Your task to perform on an android device: turn on data saver in the chrome app Image 0: 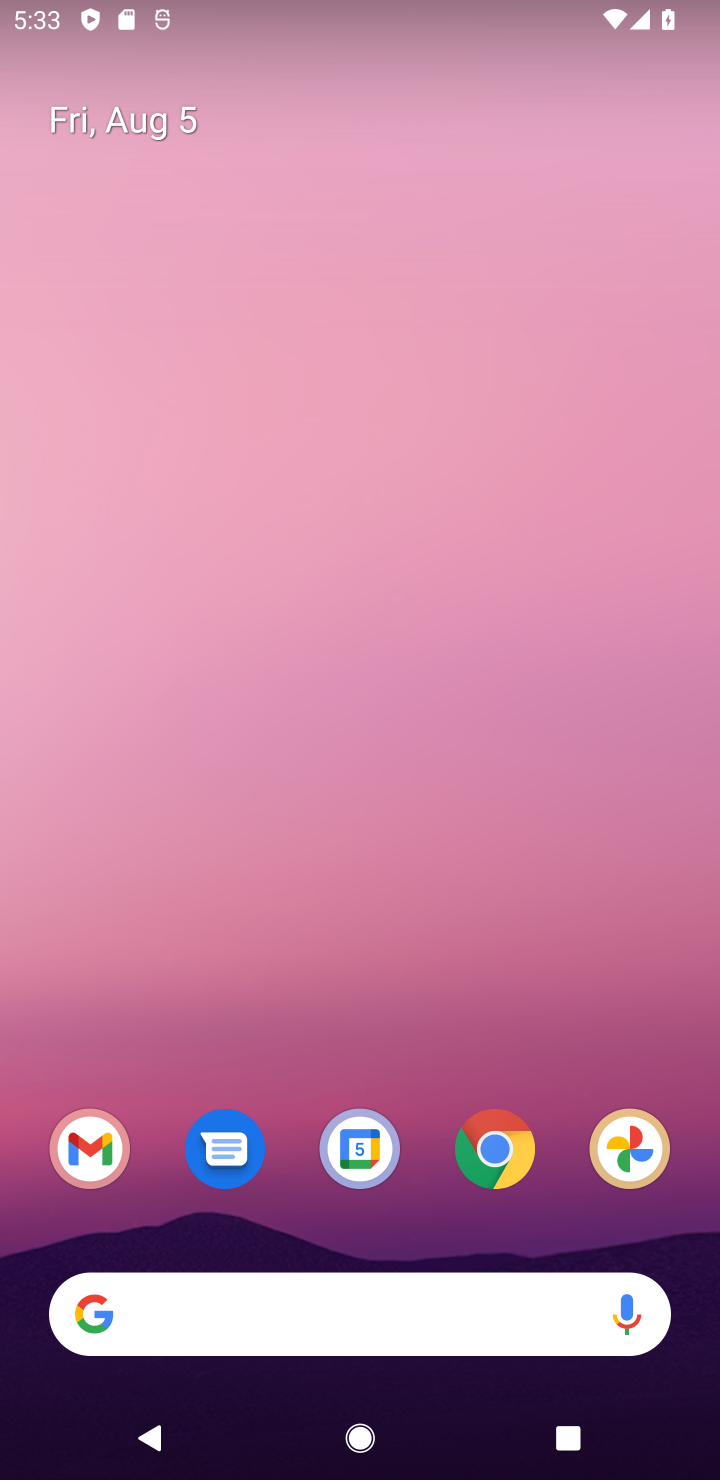
Step 0: click (491, 1159)
Your task to perform on an android device: turn on data saver in the chrome app Image 1: 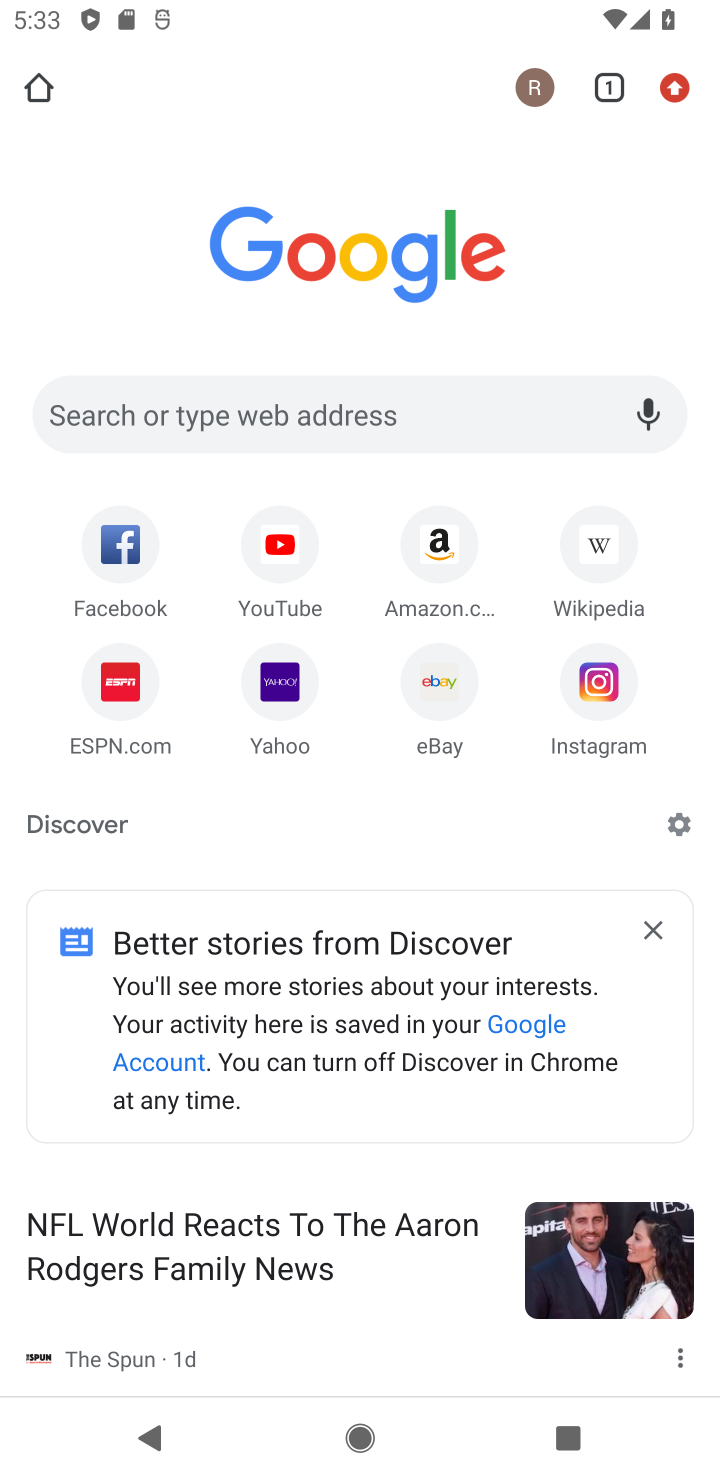
Step 1: click (670, 83)
Your task to perform on an android device: turn on data saver in the chrome app Image 2: 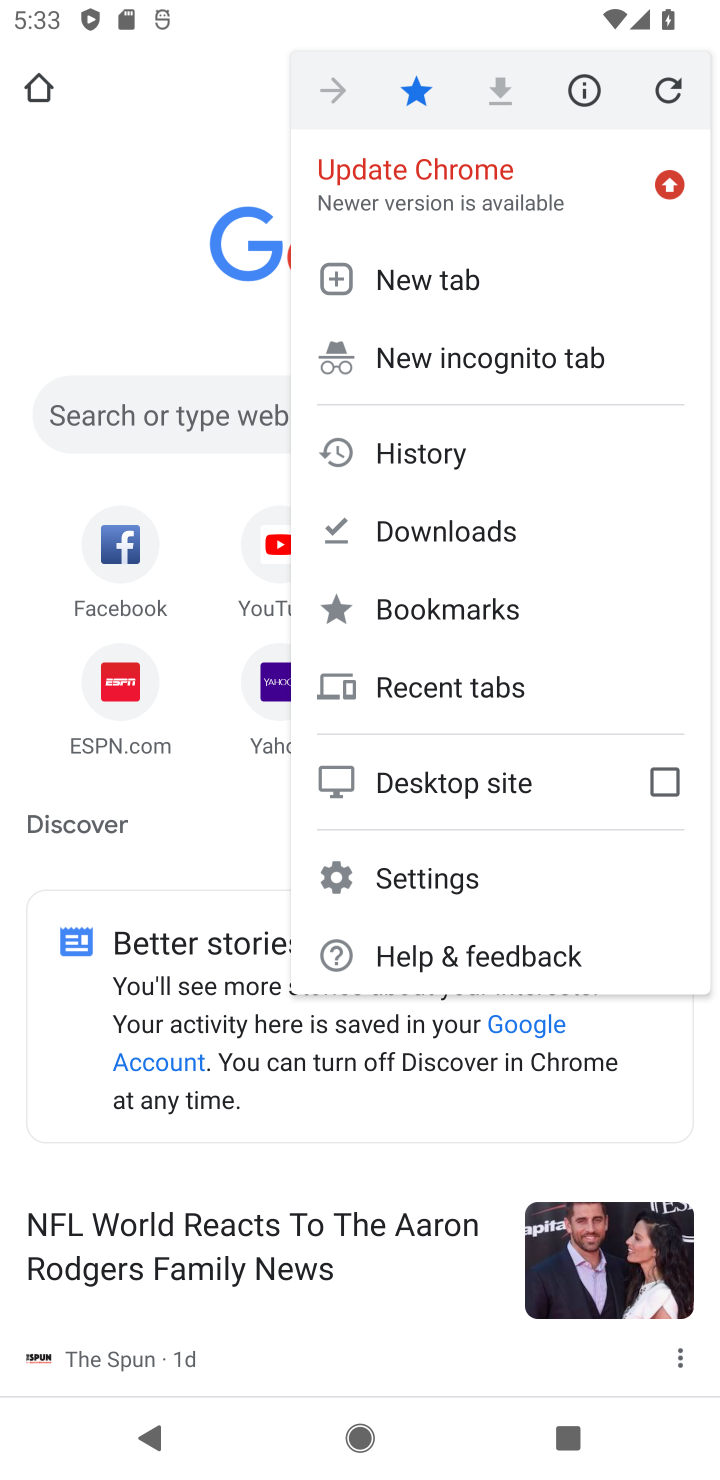
Step 2: click (403, 882)
Your task to perform on an android device: turn on data saver in the chrome app Image 3: 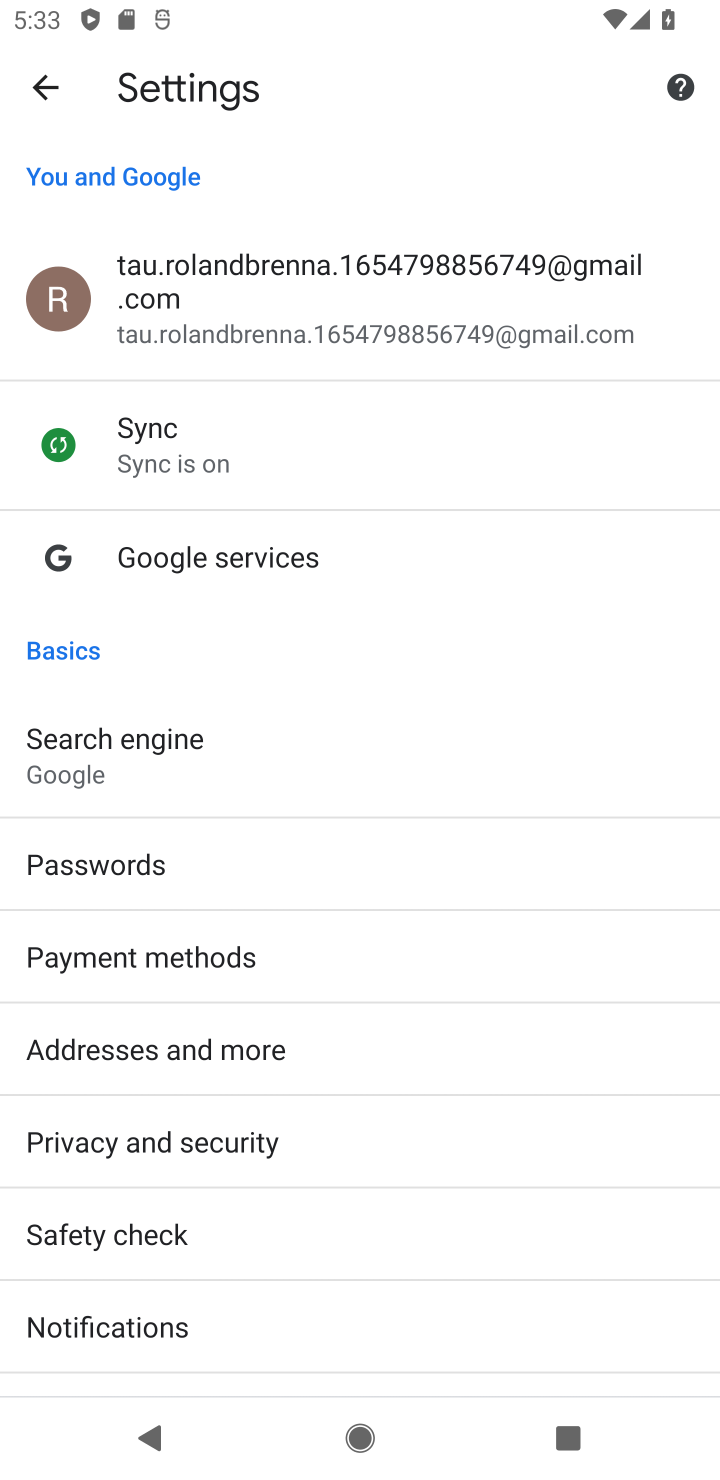
Step 3: drag from (431, 971) to (314, 391)
Your task to perform on an android device: turn on data saver in the chrome app Image 4: 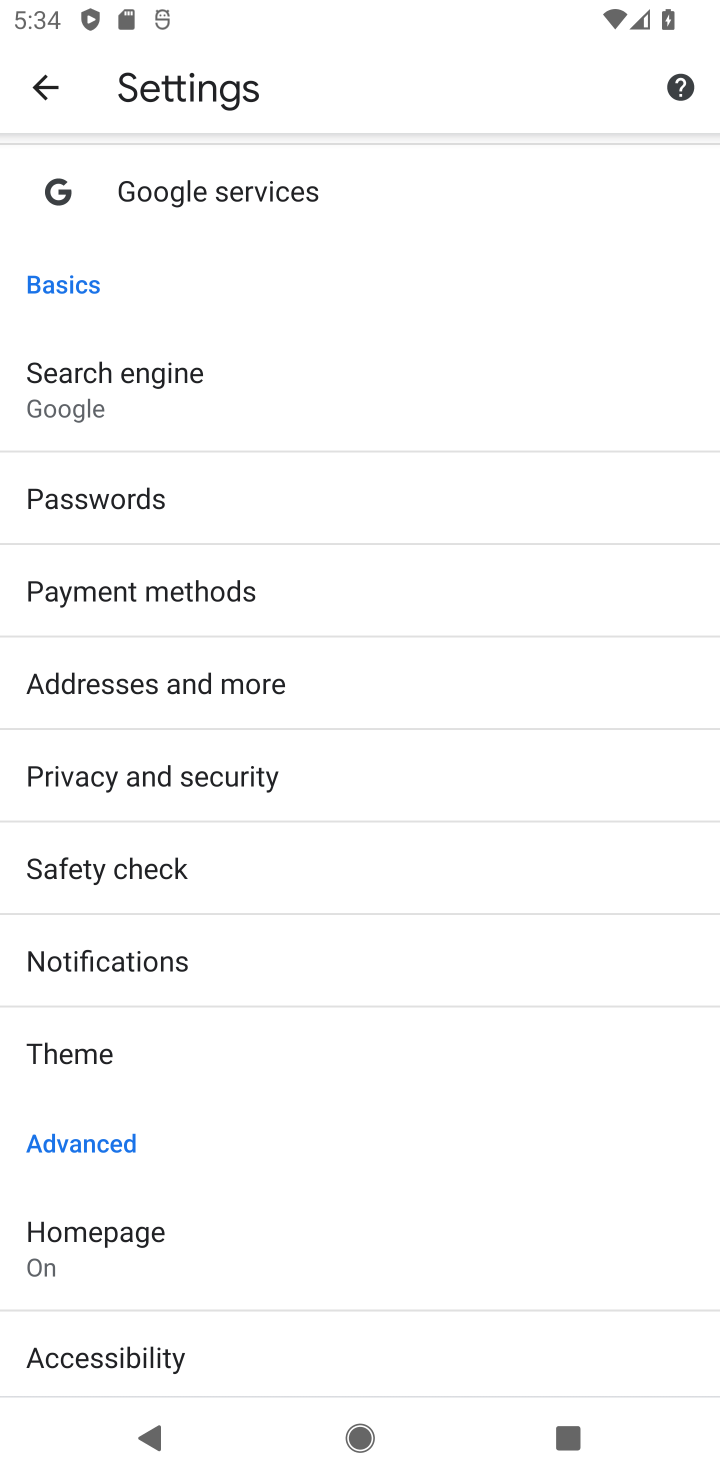
Step 4: drag from (344, 1072) to (239, 327)
Your task to perform on an android device: turn on data saver in the chrome app Image 5: 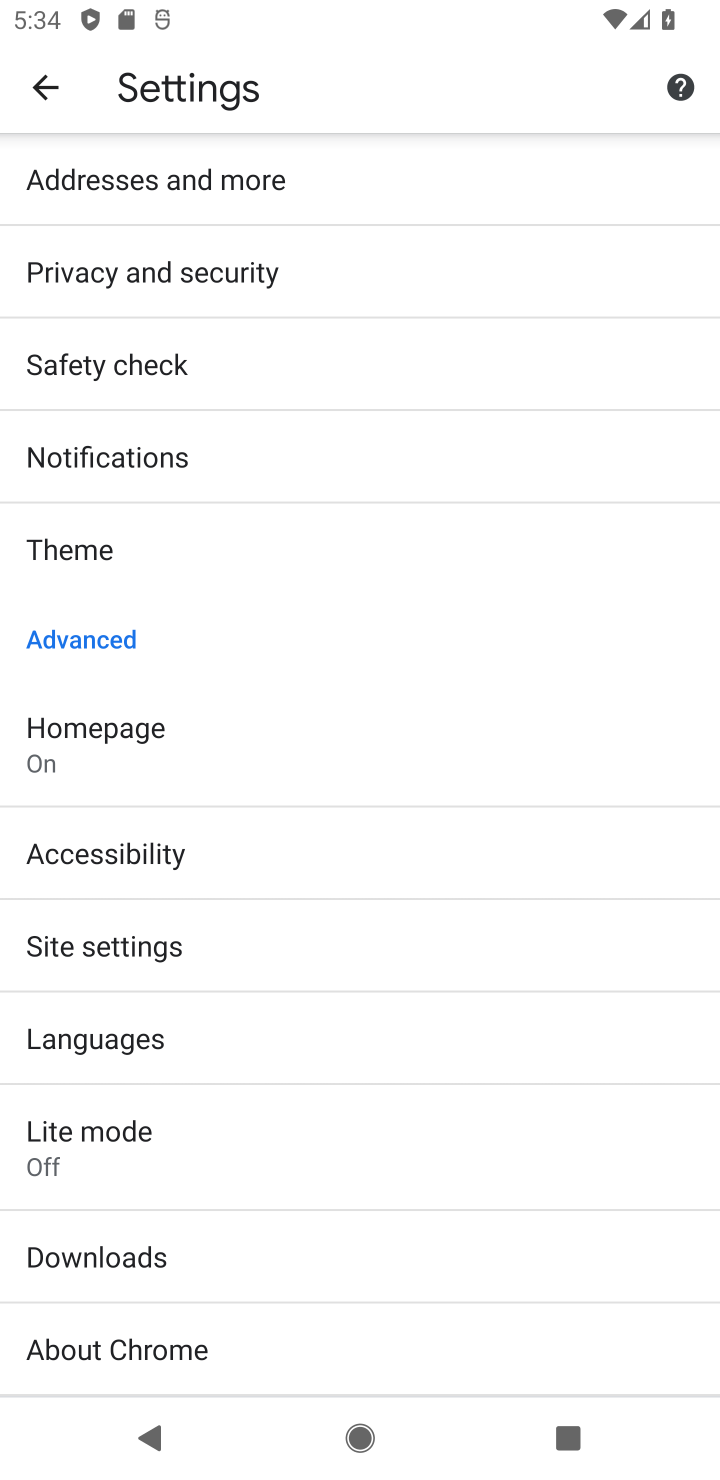
Step 5: click (145, 1142)
Your task to perform on an android device: turn on data saver in the chrome app Image 6: 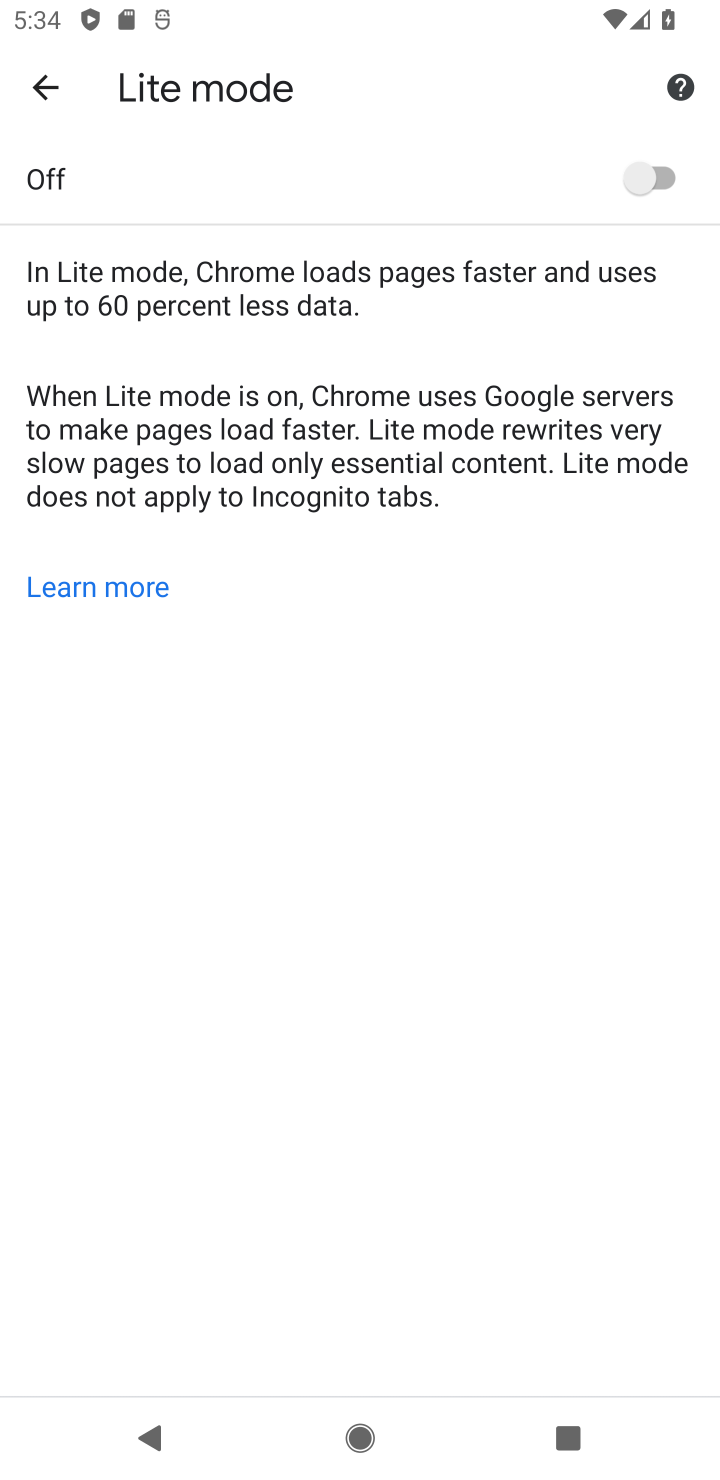
Step 6: click (643, 181)
Your task to perform on an android device: turn on data saver in the chrome app Image 7: 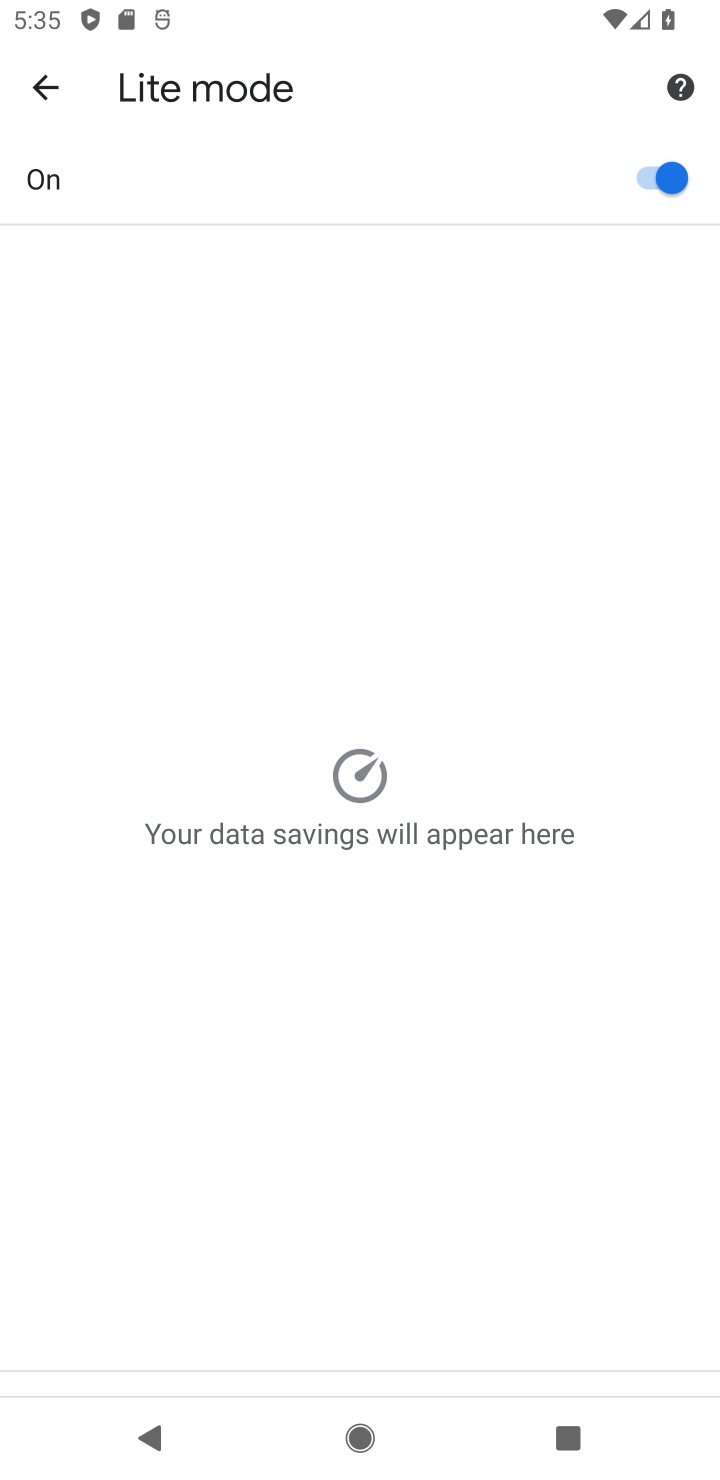
Step 7: click (643, 181)
Your task to perform on an android device: turn on data saver in the chrome app Image 8: 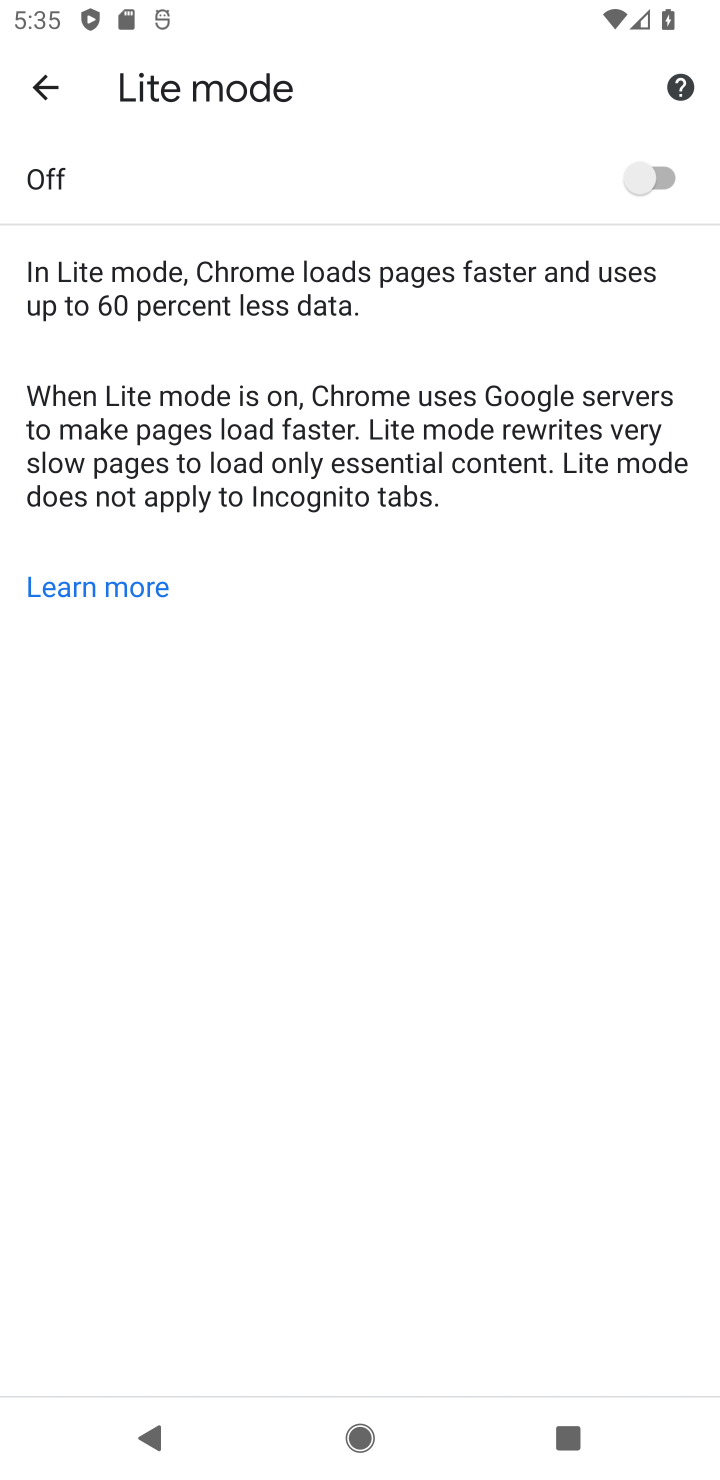
Step 8: click (643, 181)
Your task to perform on an android device: turn on data saver in the chrome app Image 9: 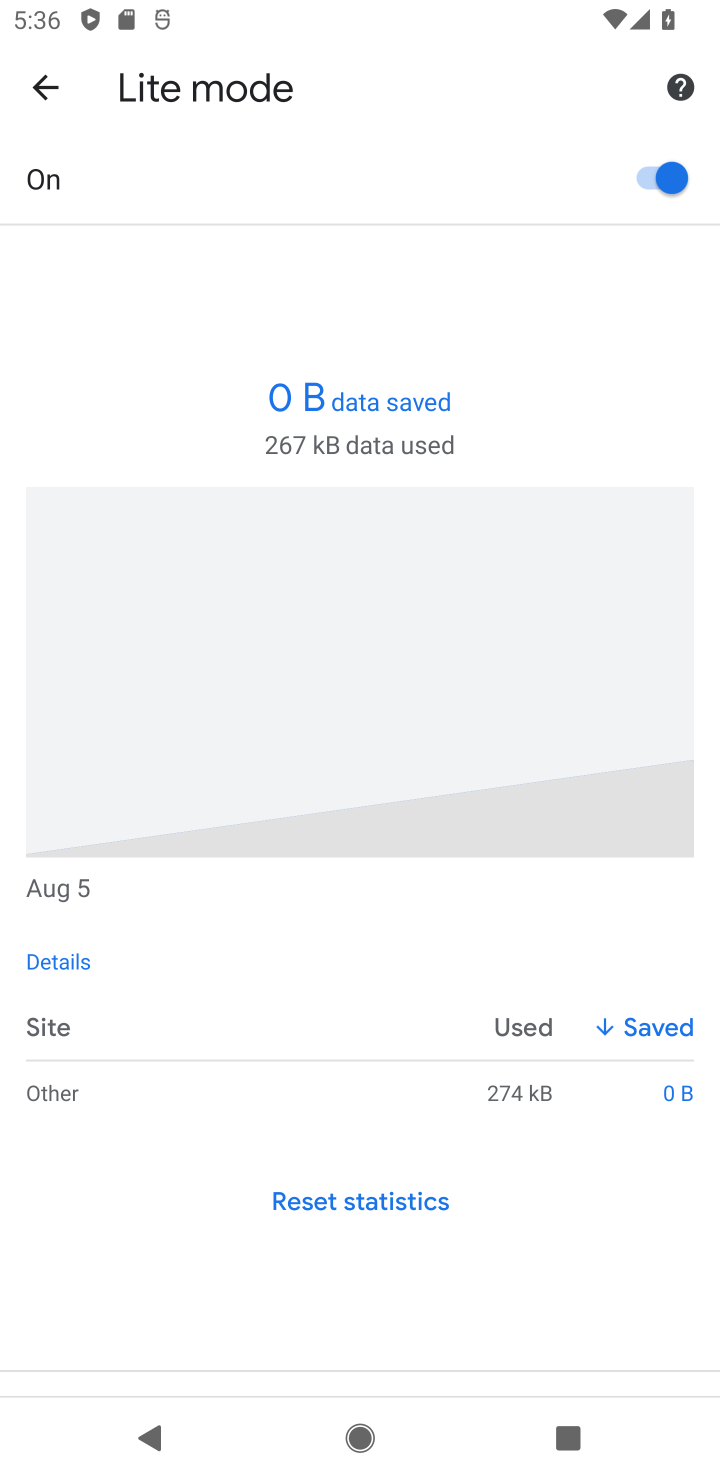
Step 9: task complete